Your task to perform on an android device: Open location settings Image 0: 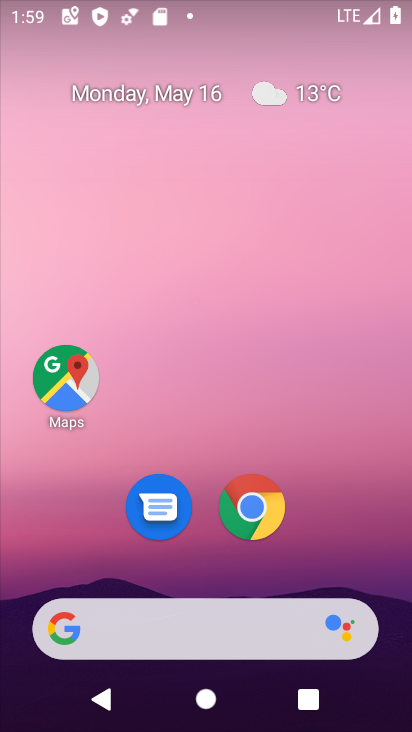
Step 0: drag from (317, 562) to (245, 56)
Your task to perform on an android device: Open location settings Image 1: 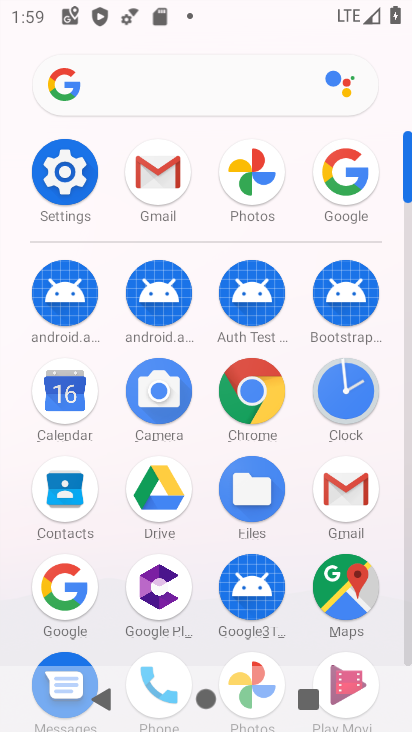
Step 1: click (58, 156)
Your task to perform on an android device: Open location settings Image 2: 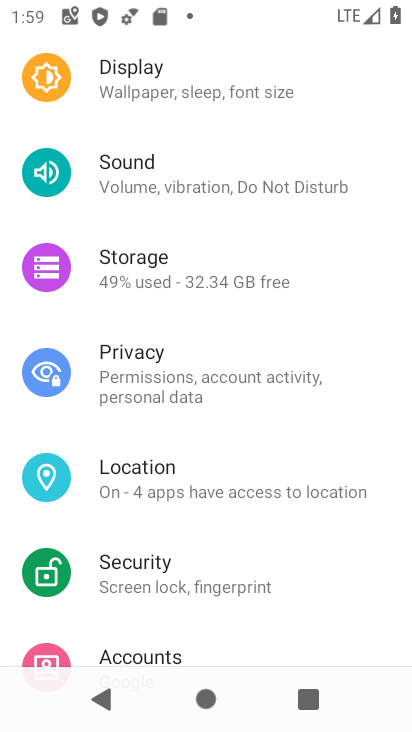
Step 2: click (187, 475)
Your task to perform on an android device: Open location settings Image 3: 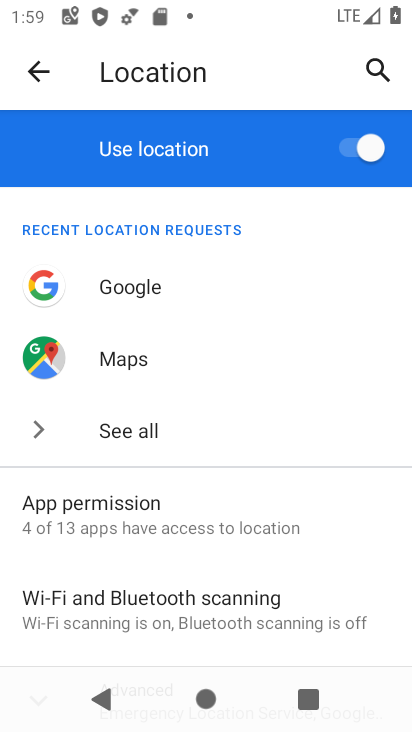
Step 3: drag from (303, 566) to (226, 98)
Your task to perform on an android device: Open location settings Image 4: 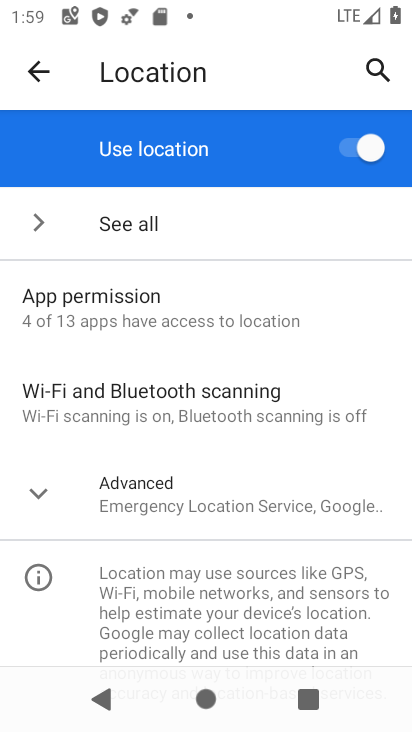
Step 4: click (183, 497)
Your task to perform on an android device: Open location settings Image 5: 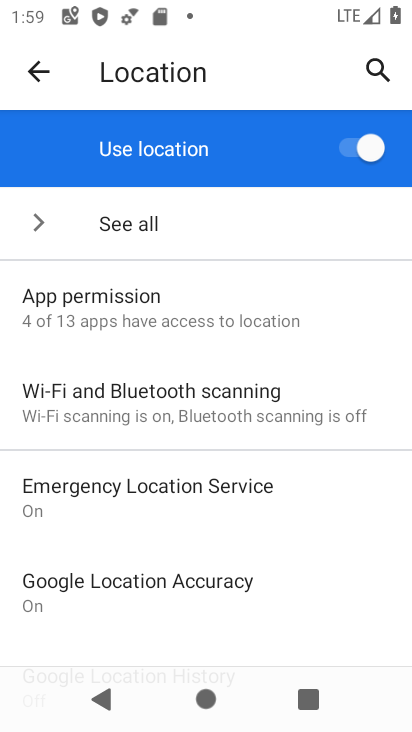
Step 5: task complete